Your task to perform on an android device: show emergency info Image 0: 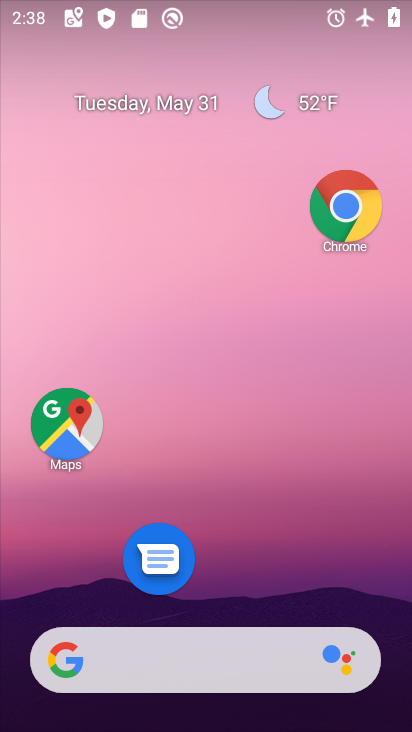
Step 0: drag from (221, 606) to (223, 122)
Your task to perform on an android device: show emergency info Image 1: 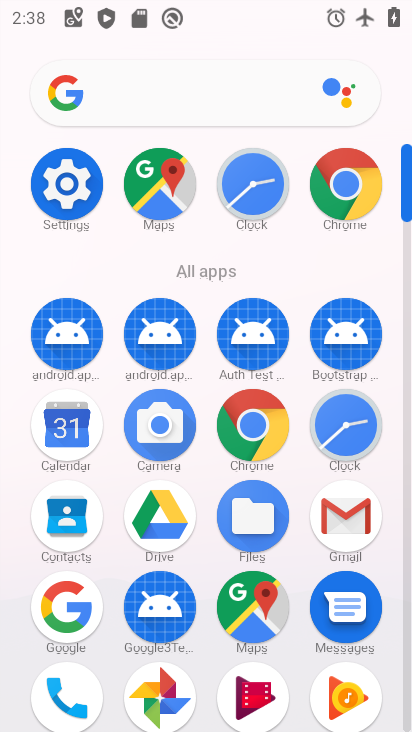
Step 1: drag from (278, 248) to (306, 9)
Your task to perform on an android device: show emergency info Image 2: 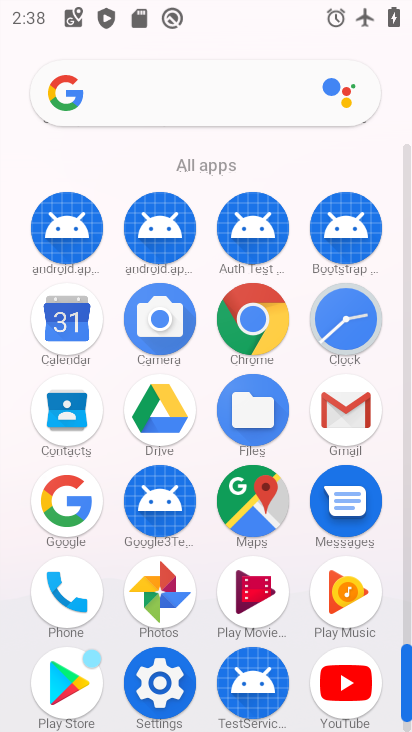
Step 2: click (170, 671)
Your task to perform on an android device: show emergency info Image 3: 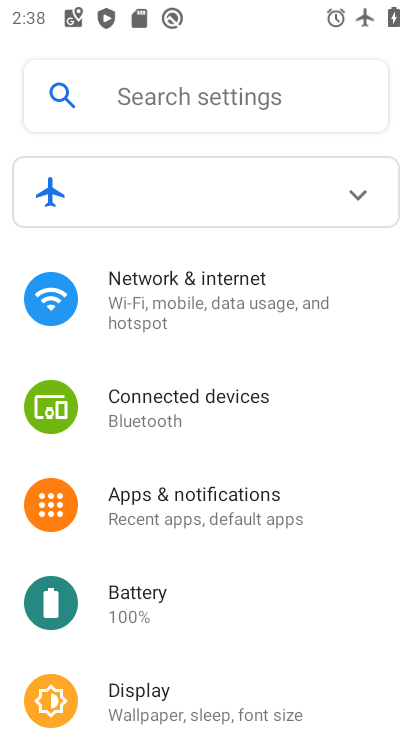
Step 3: drag from (214, 628) to (251, 124)
Your task to perform on an android device: show emergency info Image 4: 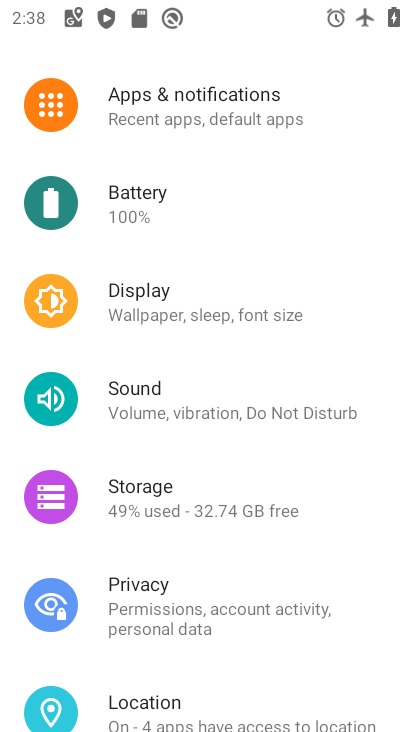
Step 4: drag from (202, 612) to (211, 100)
Your task to perform on an android device: show emergency info Image 5: 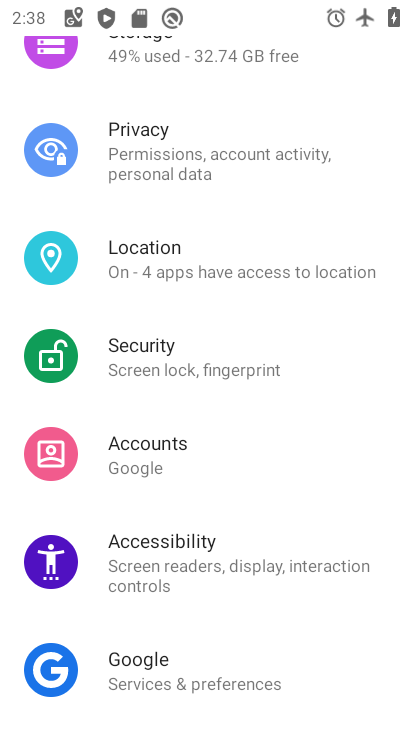
Step 5: drag from (234, 622) to (284, 123)
Your task to perform on an android device: show emergency info Image 6: 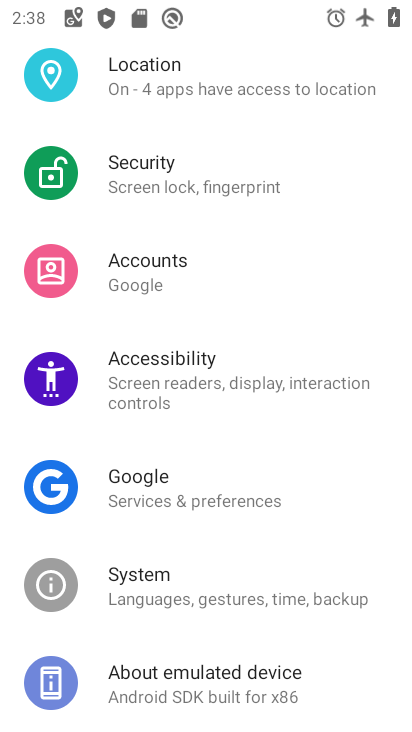
Step 6: click (223, 680)
Your task to perform on an android device: show emergency info Image 7: 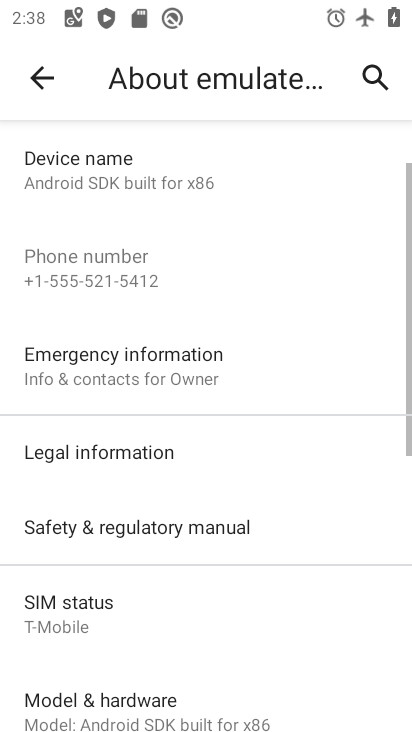
Step 7: click (190, 370)
Your task to perform on an android device: show emergency info Image 8: 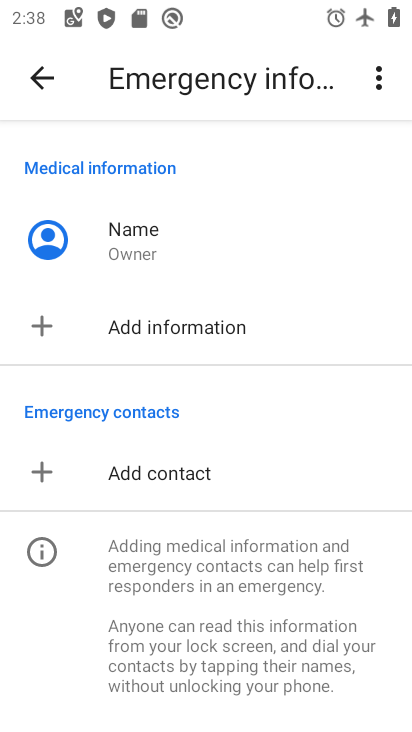
Step 8: task complete